Your task to perform on an android device: Search for the new nike shoes on Target Image 0: 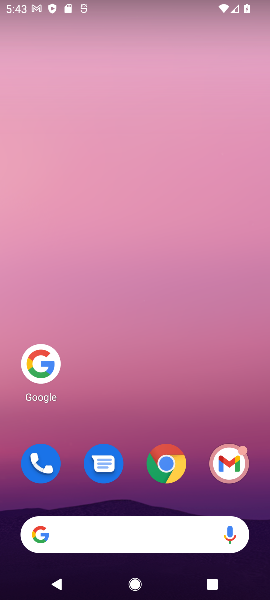
Step 0: click (47, 359)
Your task to perform on an android device: Search for the new nike shoes on Target Image 1: 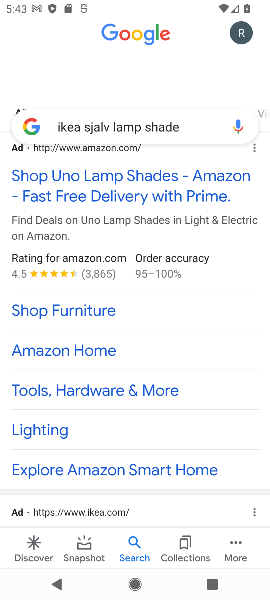
Step 1: click (197, 124)
Your task to perform on an android device: Search for the new nike shoes on Target Image 2: 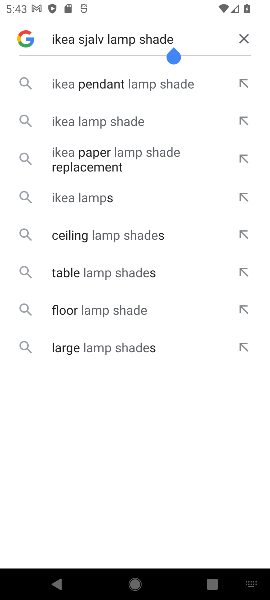
Step 2: click (242, 28)
Your task to perform on an android device: Search for the new nike shoes on Target Image 3: 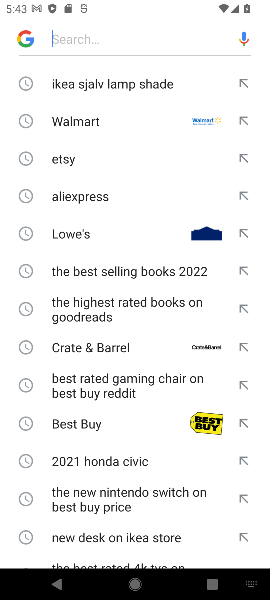
Step 3: click (133, 31)
Your task to perform on an android device: Search for the new nike shoes on Target Image 4: 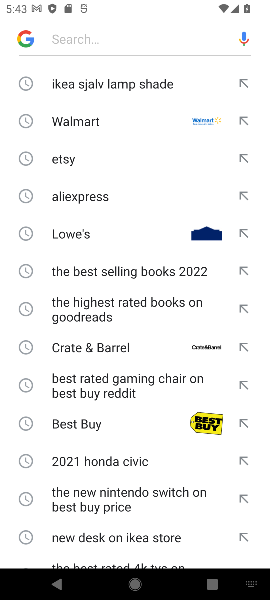
Step 4: type " the new nike shoes on Target "
Your task to perform on an android device: Search for the new nike shoes on Target Image 5: 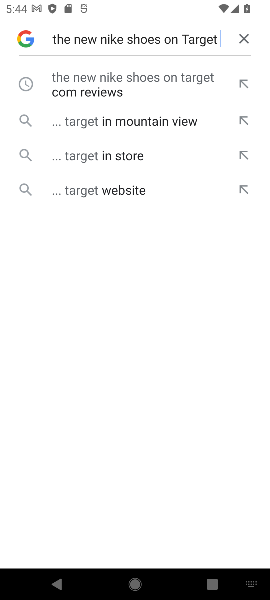
Step 5: click (122, 151)
Your task to perform on an android device: Search for the new nike shoes on Target Image 6: 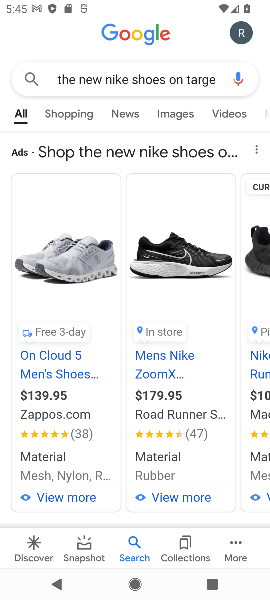
Step 6: task complete